Your task to perform on an android device: turn on notifications settings in the gmail app Image 0: 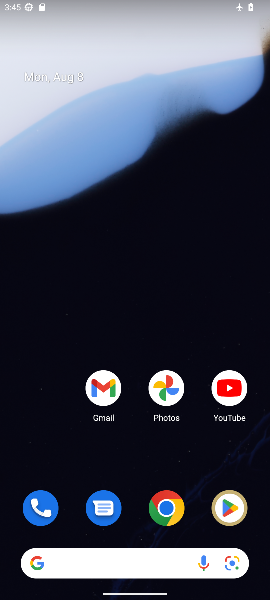
Step 0: click (101, 383)
Your task to perform on an android device: turn on notifications settings in the gmail app Image 1: 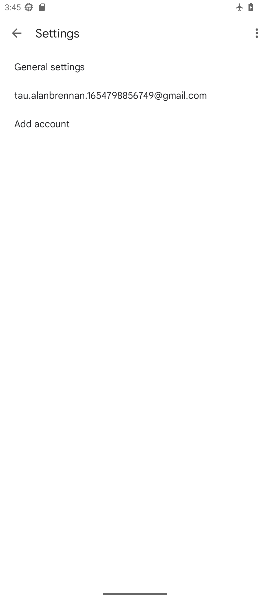
Step 1: click (54, 65)
Your task to perform on an android device: turn on notifications settings in the gmail app Image 2: 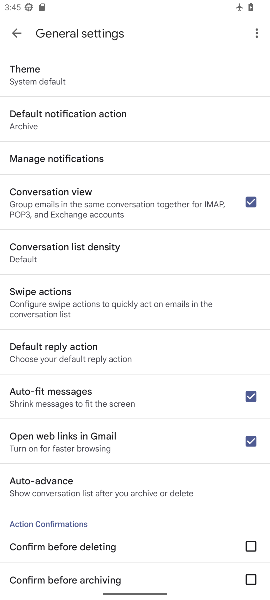
Step 2: click (68, 165)
Your task to perform on an android device: turn on notifications settings in the gmail app Image 3: 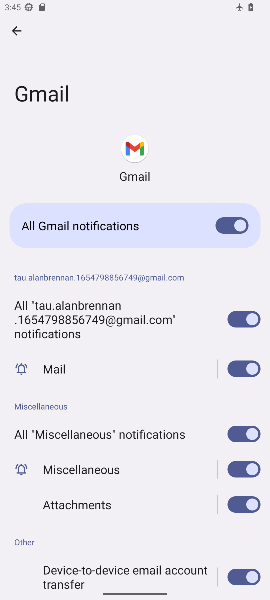
Step 3: task complete